Your task to perform on an android device: turn on notifications settings in the gmail app Image 0: 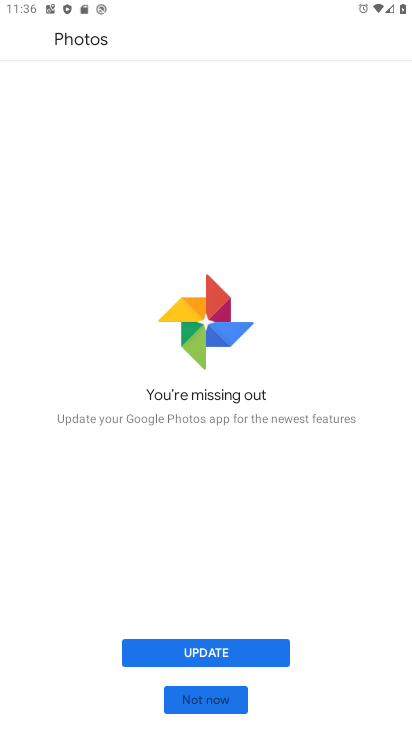
Step 0: press home button
Your task to perform on an android device: turn on notifications settings in the gmail app Image 1: 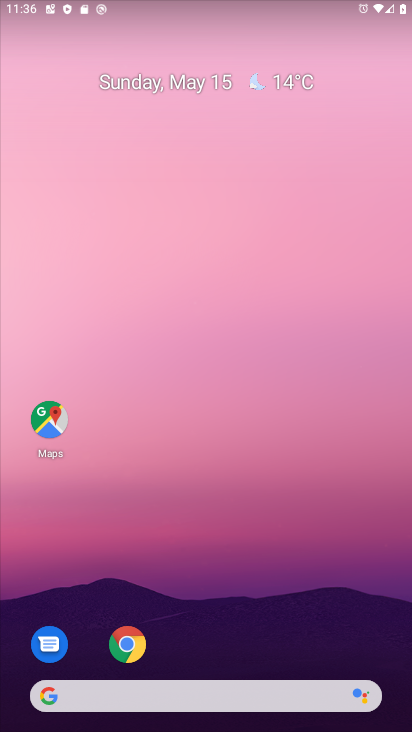
Step 1: drag from (224, 512) to (120, 50)
Your task to perform on an android device: turn on notifications settings in the gmail app Image 2: 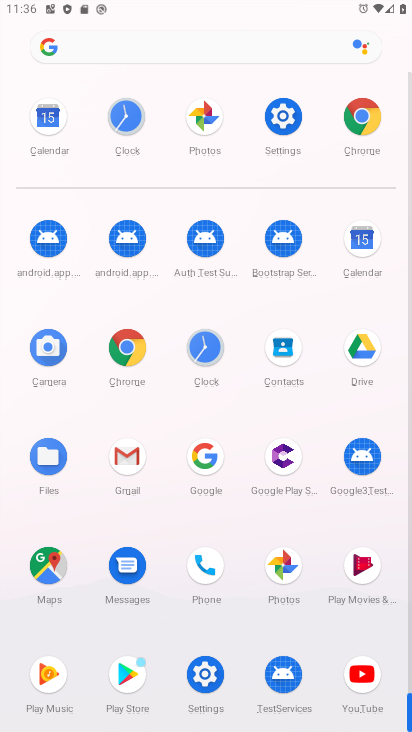
Step 2: click (133, 447)
Your task to perform on an android device: turn on notifications settings in the gmail app Image 3: 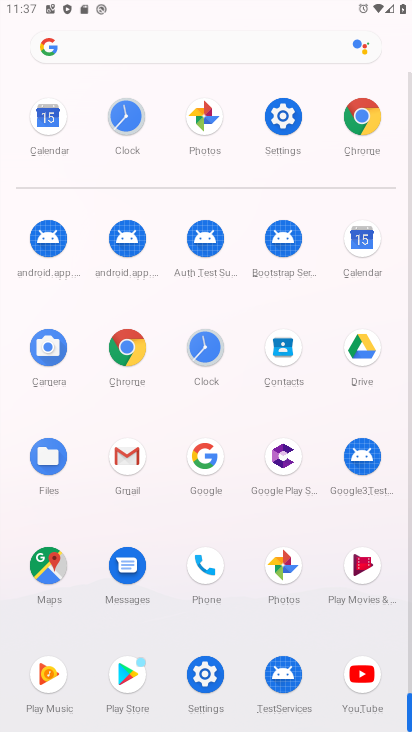
Step 3: click (129, 459)
Your task to perform on an android device: turn on notifications settings in the gmail app Image 4: 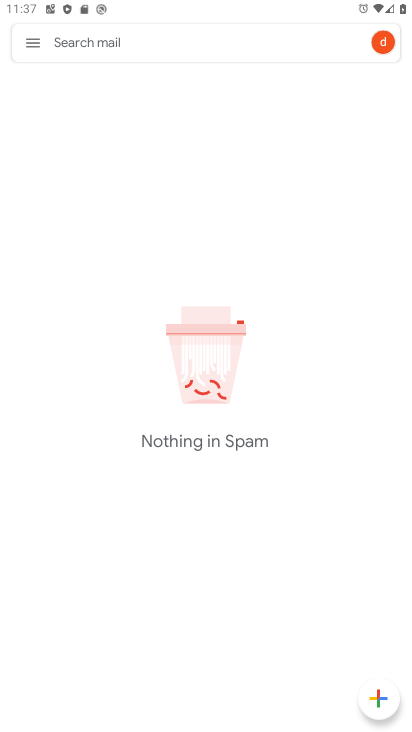
Step 4: click (26, 36)
Your task to perform on an android device: turn on notifications settings in the gmail app Image 5: 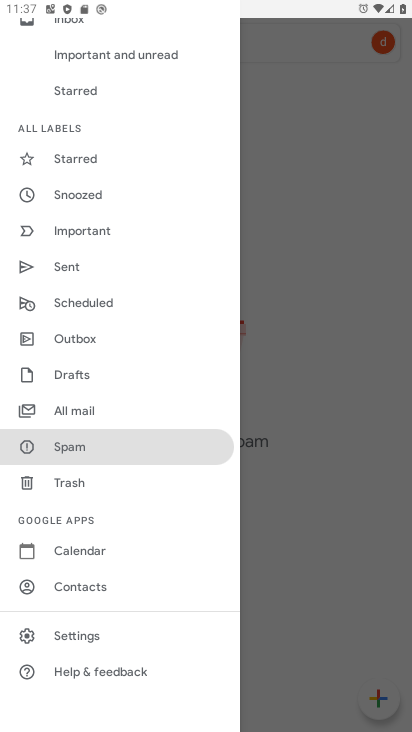
Step 5: click (86, 633)
Your task to perform on an android device: turn on notifications settings in the gmail app Image 6: 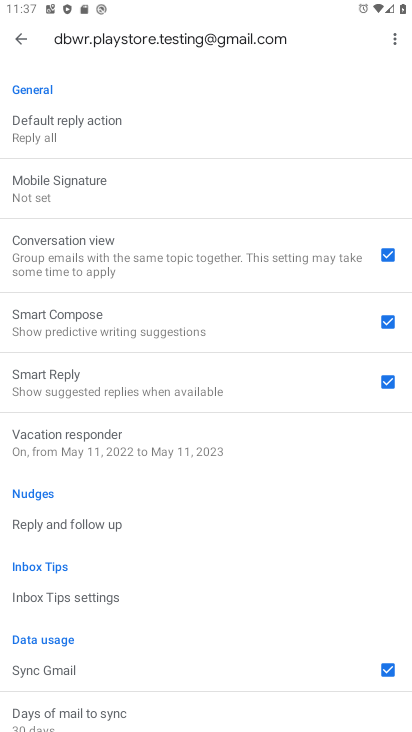
Step 6: drag from (191, 216) to (185, 521)
Your task to perform on an android device: turn on notifications settings in the gmail app Image 7: 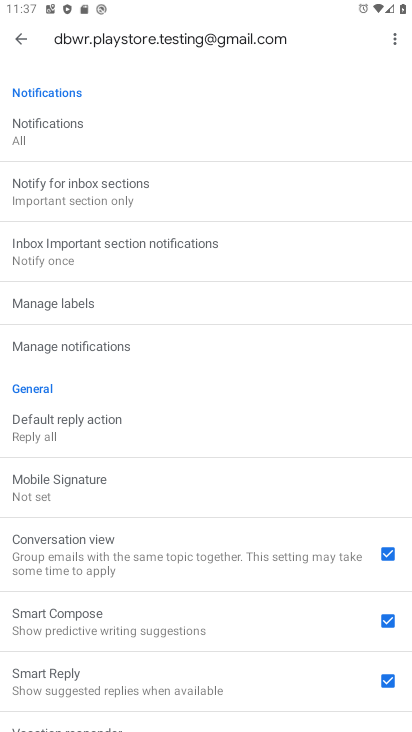
Step 7: click (99, 143)
Your task to perform on an android device: turn on notifications settings in the gmail app Image 8: 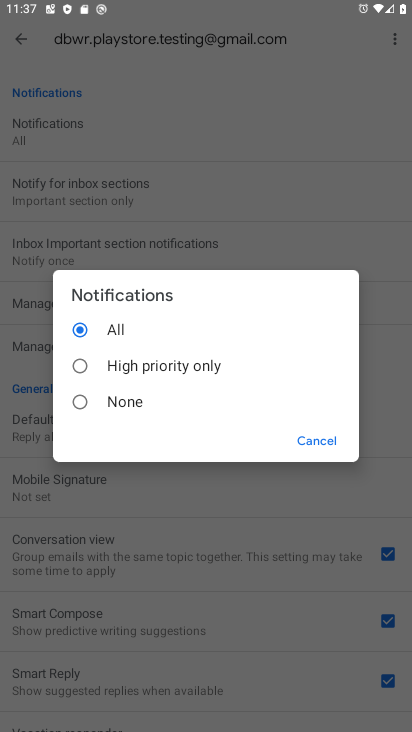
Step 8: task complete